Your task to perform on an android device: move an email to a new category in the gmail app Image 0: 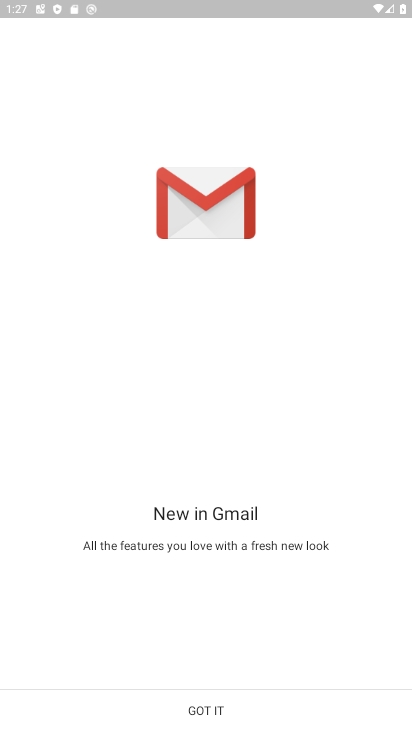
Step 0: press home button
Your task to perform on an android device: move an email to a new category in the gmail app Image 1: 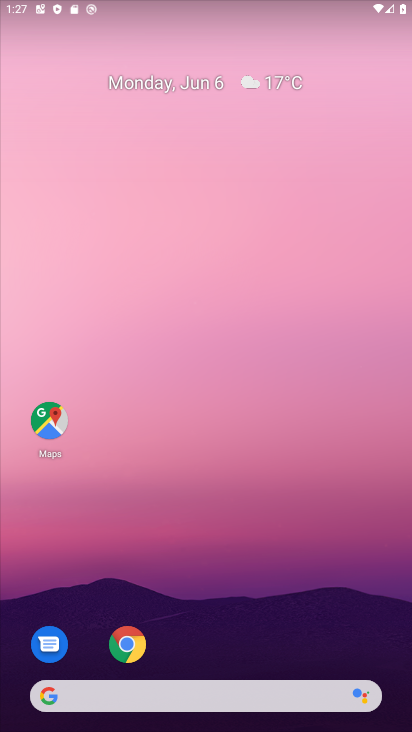
Step 1: drag from (291, 632) to (313, 88)
Your task to perform on an android device: move an email to a new category in the gmail app Image 2: 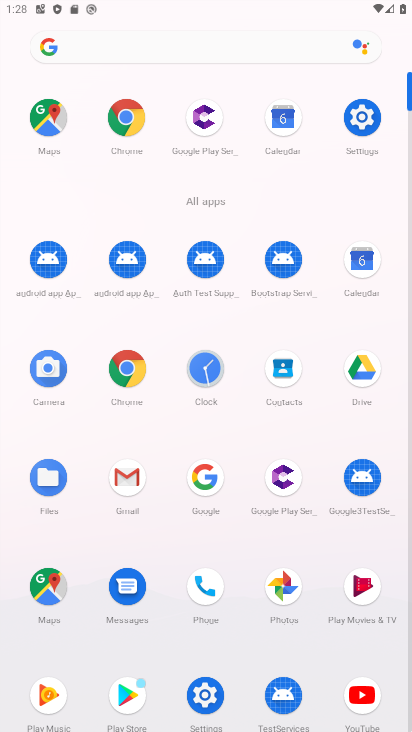
Step 2: click (130, 481)
Your task to perform on an android device: move an email to a new category in the gmail app Image 3: 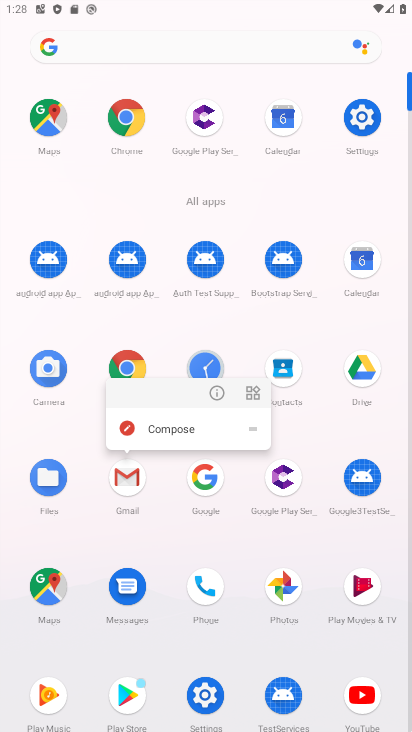
Step 3: click (130, 487)
Your task to perform on an android device: move an email to a new category in the gmail app Image 4: 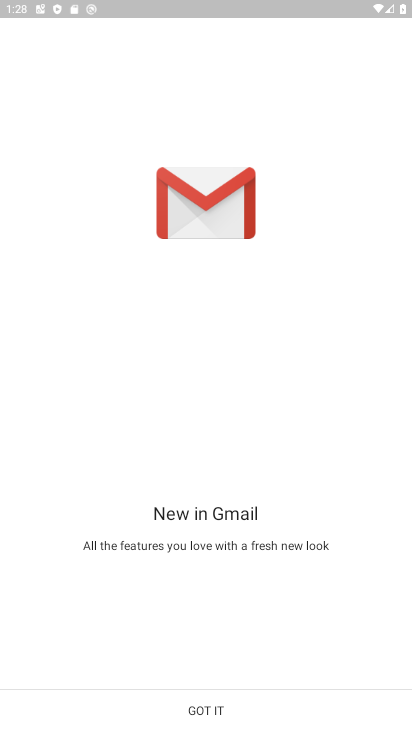
Step 4: click (214, 728)
Your task to perform on an android device: move an email to a new category in the gmail app Image 5: 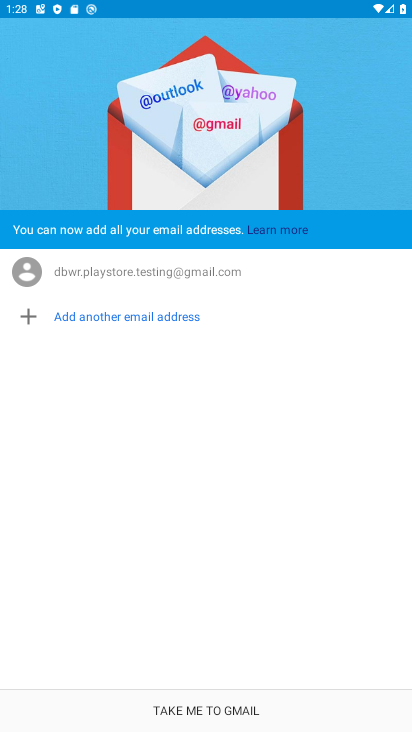
Step 5: click (251, 710)
Your task to perform on an android device: move an email to a new category in the gmail app Image 6: 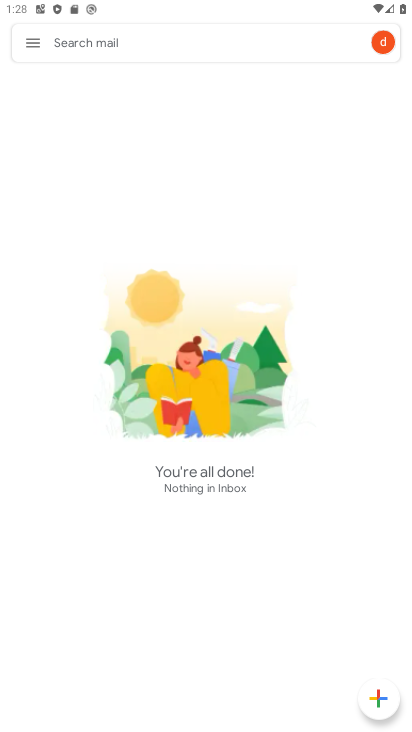
Step 6: click (31, 47)
Your task to perform on an android device: move an email to a new category in the gmail app Image 7: 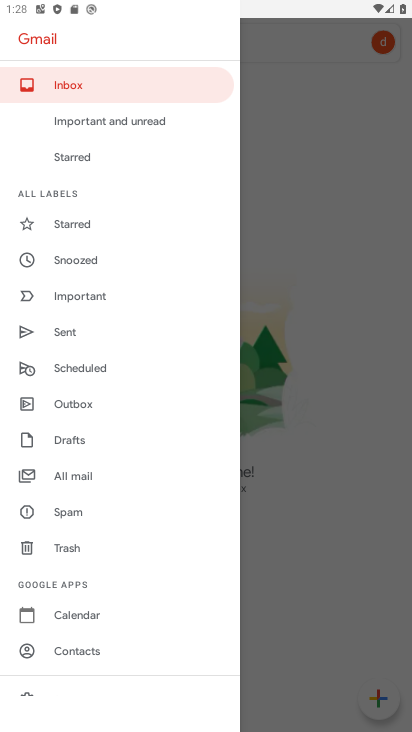
Step 7: drag from (114, 642) to (116, 299)
Your task to perform on an android device: move an email to a new category in the gmail app Image 8: 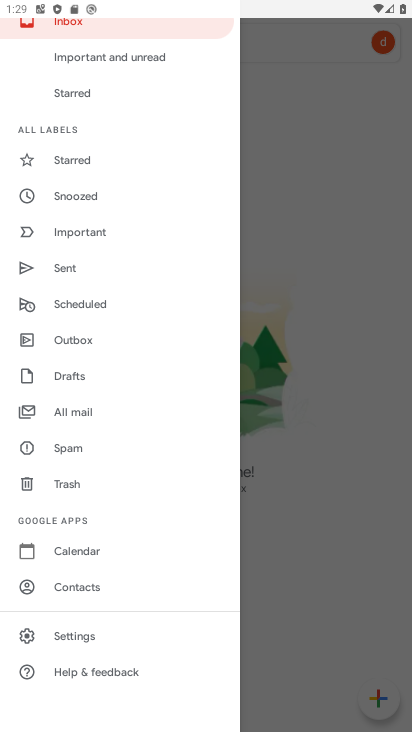
Step 8: click (98, 639)
Your task to perform on an android device: move an email to a new category in the gmail app Image 9: 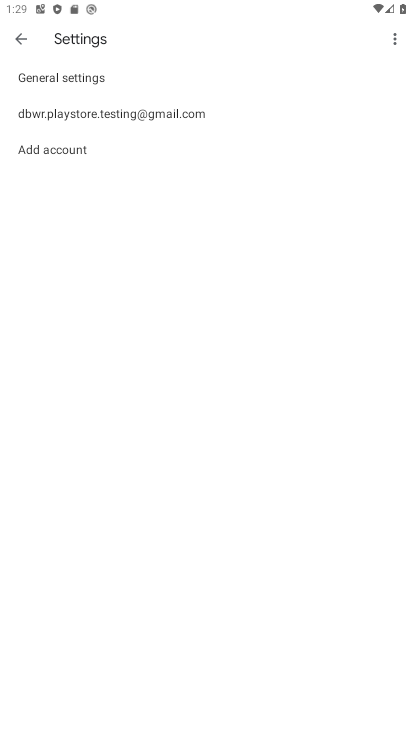
Step 9: click (220, 117)
Your task to perform on an android device: move an email to a new category in the gmail app Image 10: 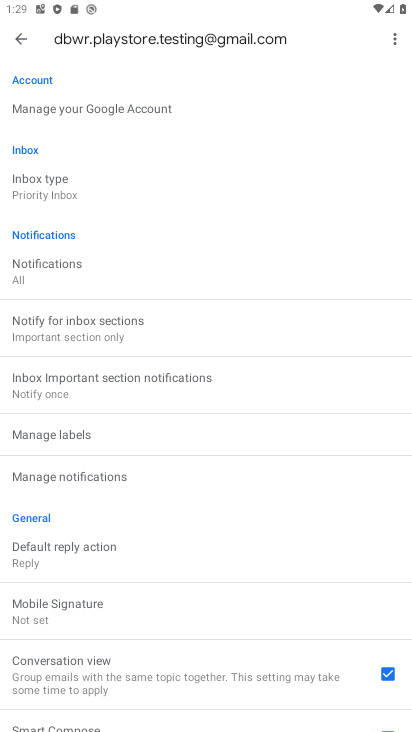
Step 10: drag from (234, 619) to (249, 210)
Your task to perform on an android device: move an email to a new category in the gmail app Image 11: 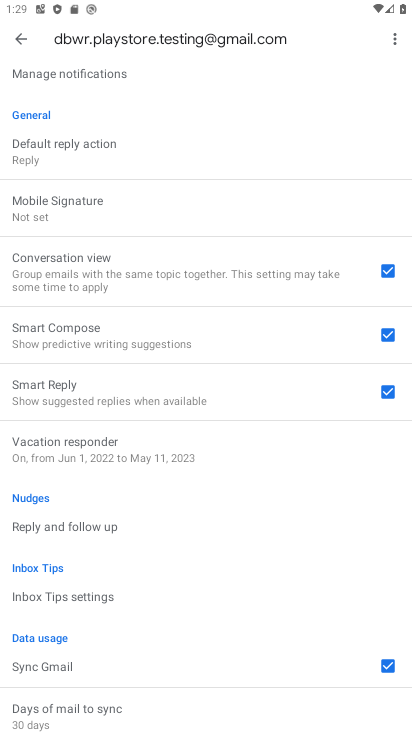
Step 11: drag from (229, 624) to (242, 254)
Your task to perform on an android device: move an email to a new category in the gmail app Image 12: 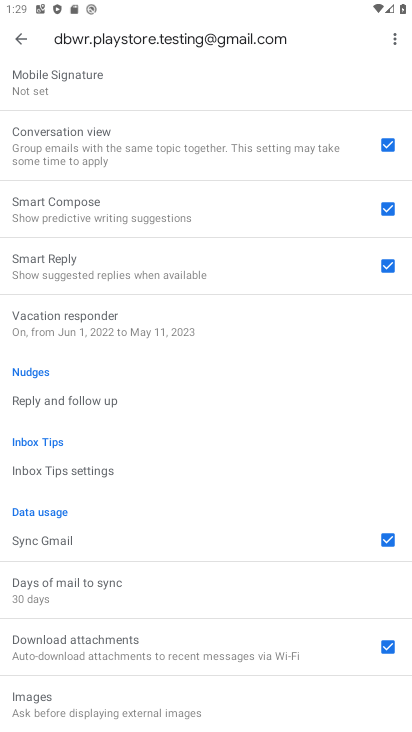
Step 12: click (9, 35)
Your task to perform on an android device: move an email to a new category in the gmail app Image 13: 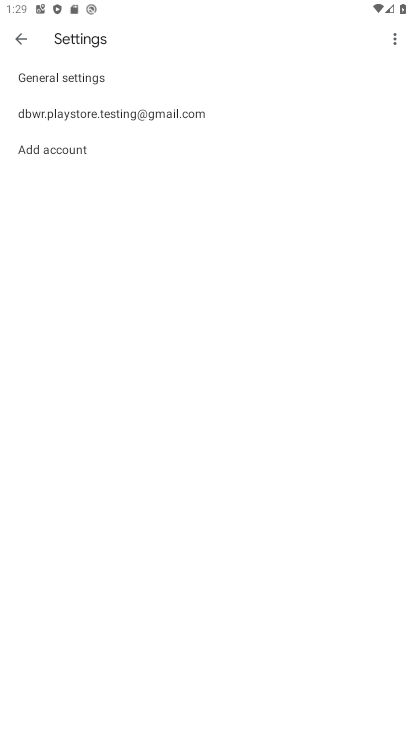
Step 13: click (9, 35)
Your task to perform on an android device: move an email to a new category in the gmail app Image 14: 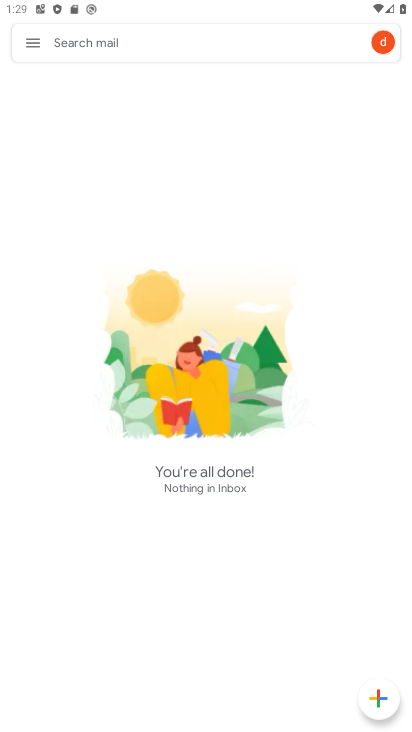
Step 14: click (34, 43)
Your task to perform on an android device: move an email to a new category in the gmail app Image 15: 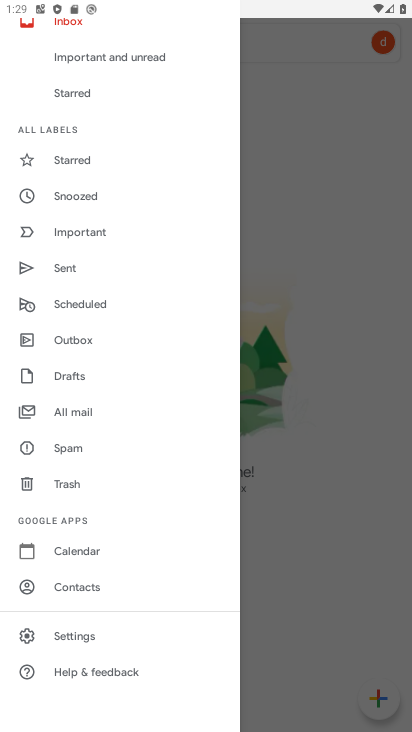
Step 15: click (87, 423)
Your task to perform on an android device: move an email to a new category in the gmail app Image 16: 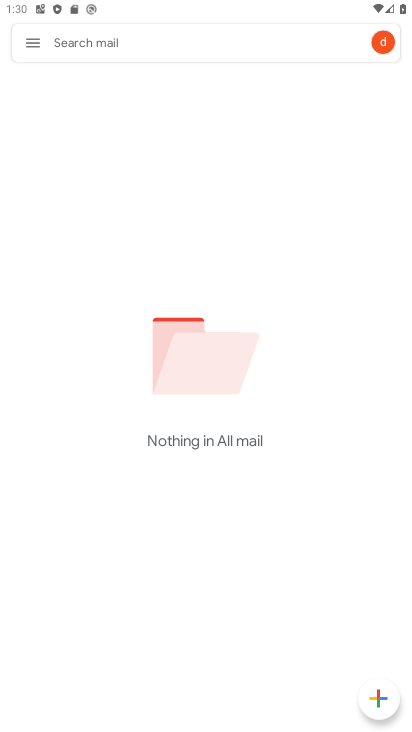
Step 16: task complete